Your task to perform on an android device: Open eBay Image 0: 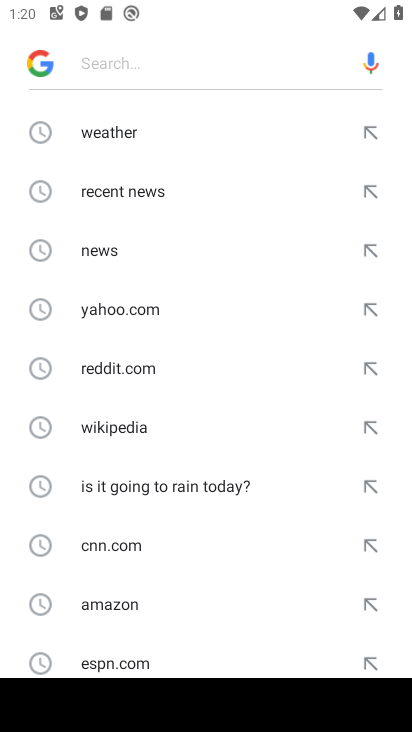
Step 0: type "eBay"
Your task to perform on an android device: Open eBay Image 1: 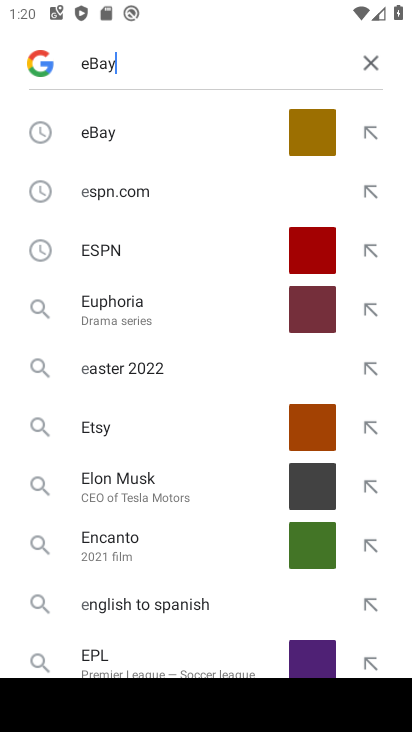
Step 1: type ""
Your task to perform on an android device: Open eBay Image 2: 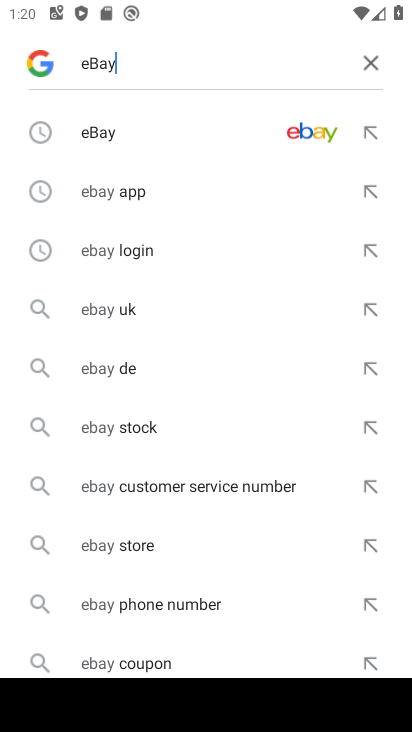
Step 2: click (112, 126)
Your task to perform on an android device: Open eBay Image 3: 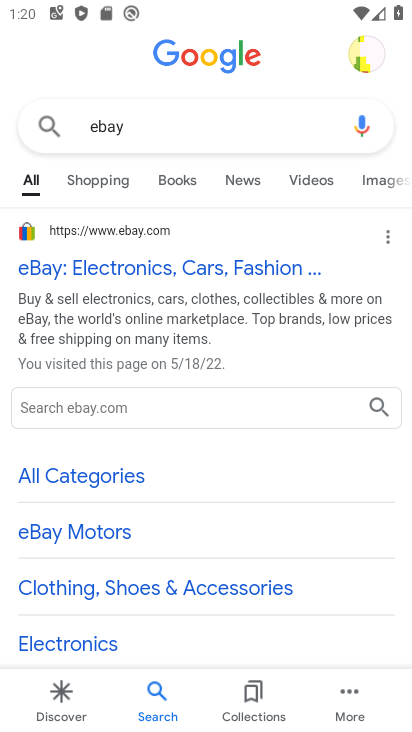
Step 3: click (226, 263)
Your task to perform on an android device: Open eBay Image 4: 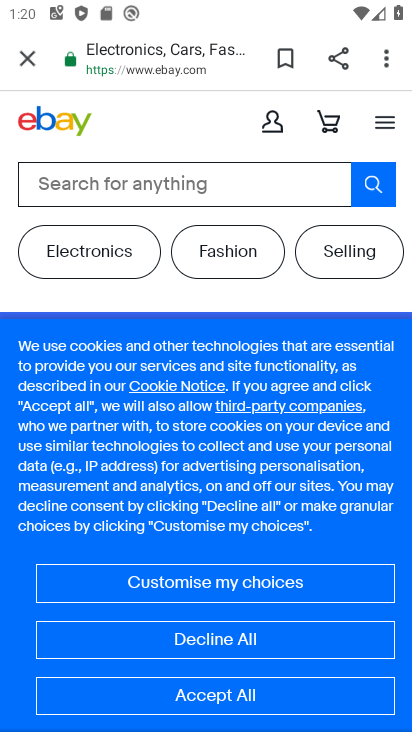
Step 4: task complete